Your task to perform on an android device: star an email in the gmail app Image 0: 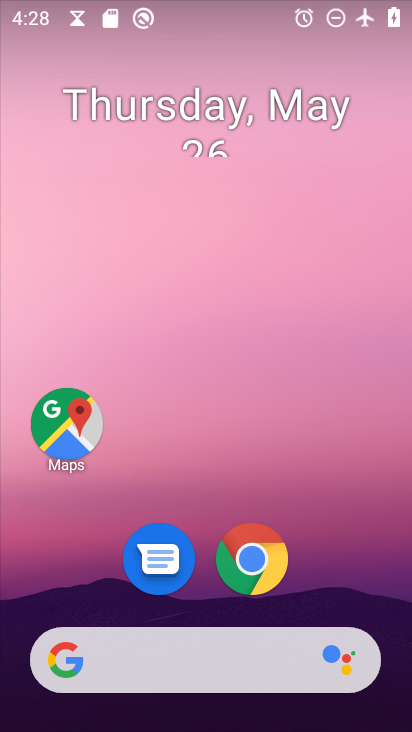
Step 0: drag from (352, 385) to (262, 13)
Your task to perform on an android device: star an email in the gmail app Image 1: 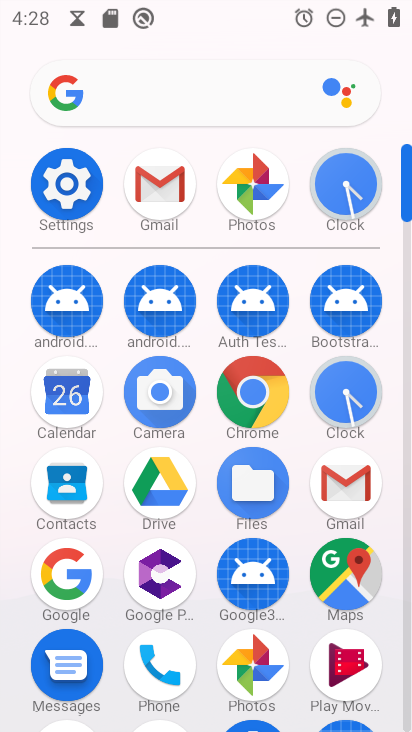
Step 1: click (343, 480)
Your task to perform on an android device: star an email in the gmail app Image 2: 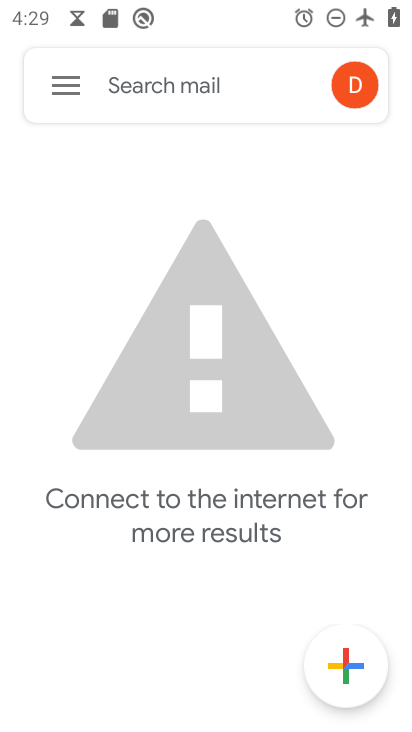
Step 2: click (77, 87)
Your task to perform on an android device: star an email in the gmail app Image 3: 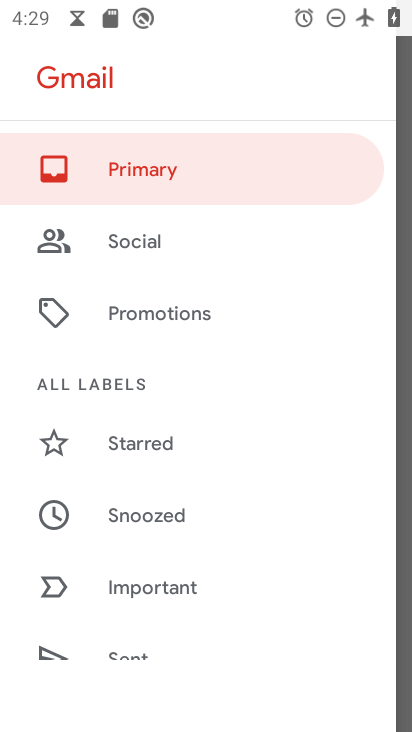
Step 3: drag from (259, 580) to (256, 222)
Your task to perform on an android device: star an email in the gmail app Image 4: 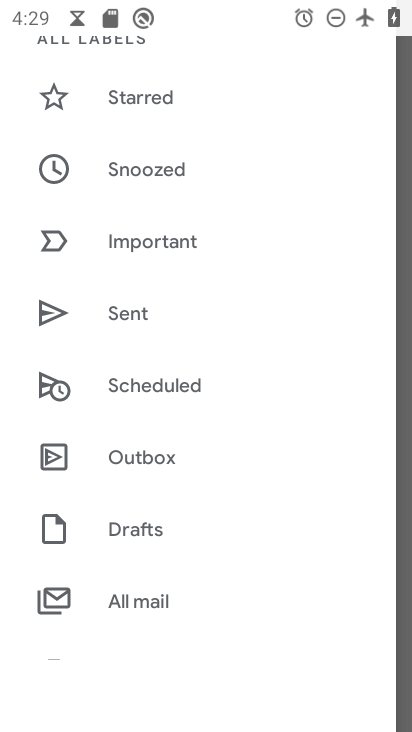
Step 4: click (169, 594)
Your task to perform on an android device: star an email in the gmail app Image 5: 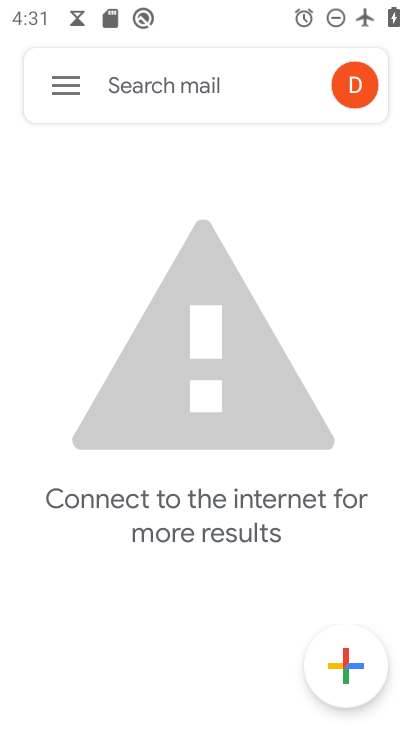
Step 5: task complete